Your task to perform on an android device: What's the weather going to be this weekend? Image 0: 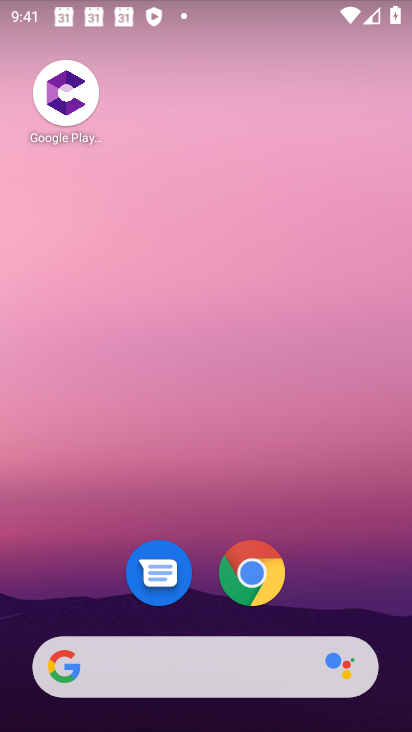
Step 0: drag from (277, 422) to (304, 160)
Your task to perform on an android device: What's the weather going to be this weekend? Image 1: 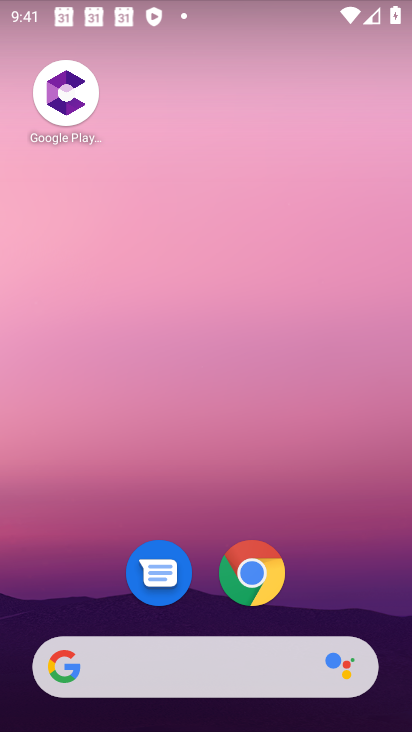
Step 1: click (268, 580)
Your task to perform on an android device: What's the weather going to be this weekend? Image 2: 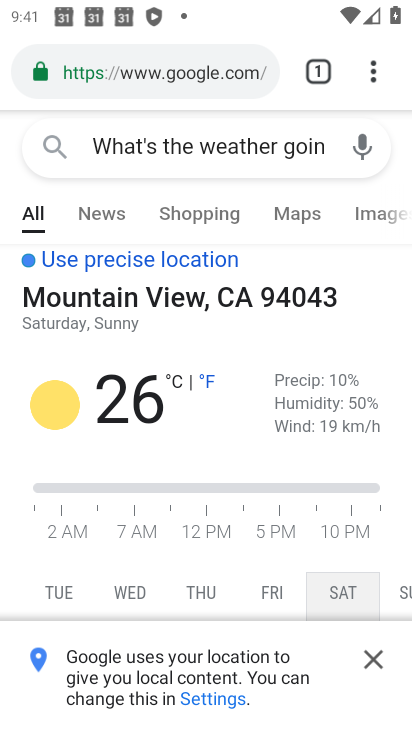
Step 2: task complete